Your task to perform on an android device: check battery use Image 0: 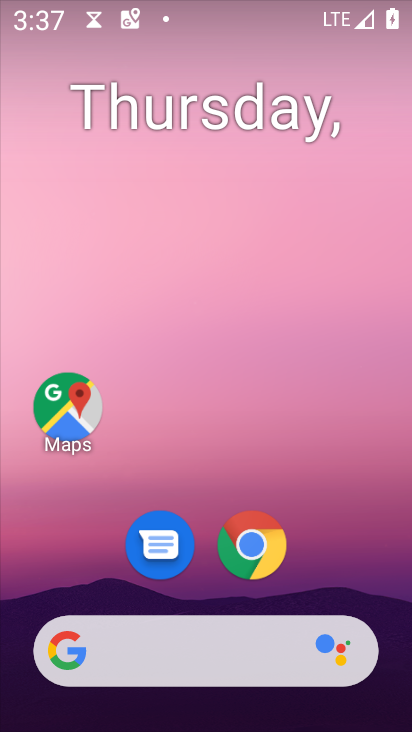
Step 0: drag from (368, 550) to (394, 36)
Your task to perform on an android device: check battery use Image 1: 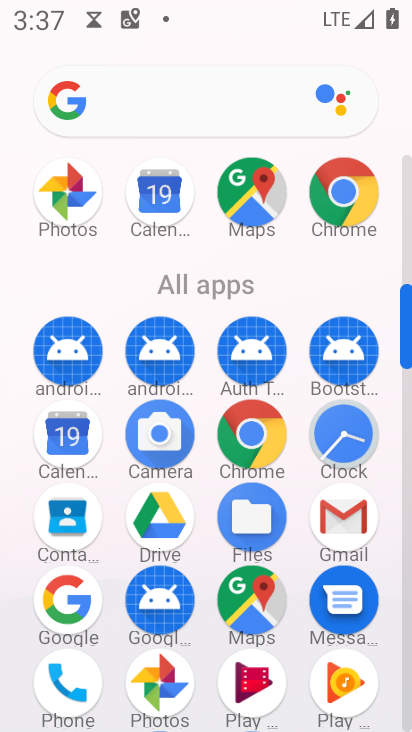
Step 1: drag from (390, 584) to (400, 221)
Your task to perform on an android device: check battery use Image 2: 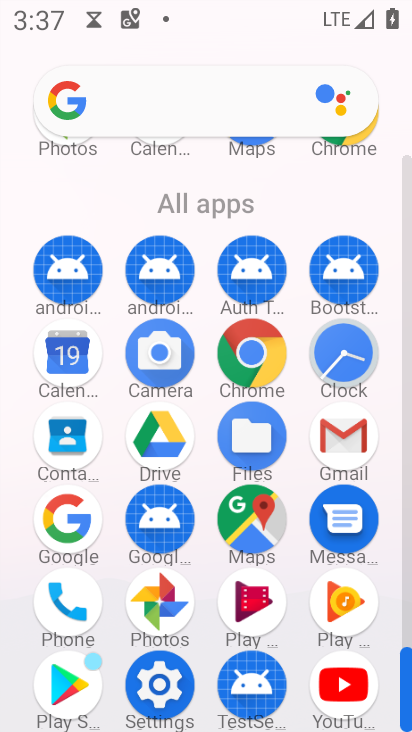
Step 2: click (181, 682)
Your task to perform on an android device: check battery use Image 3: 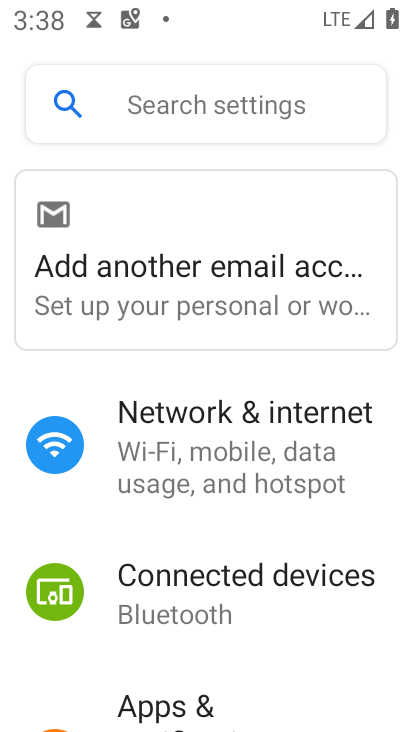
Step 3: drag from (188, 604) to (233, 235)
Your task to perform on an android device: check battery use Image 4: 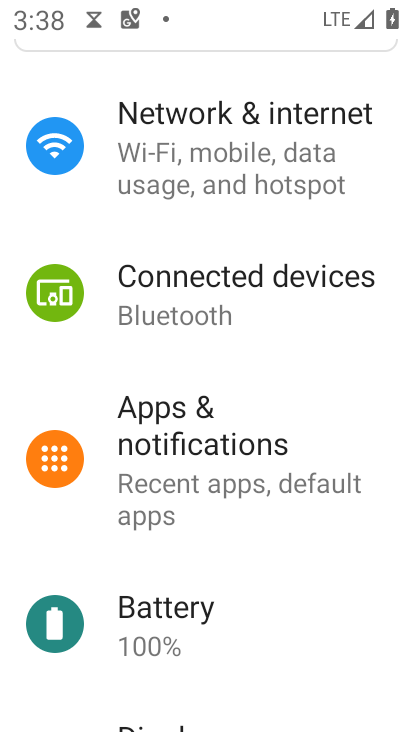
Step 4: click (182, 626)
Your task to perform on an android device: check battery use Image 5: 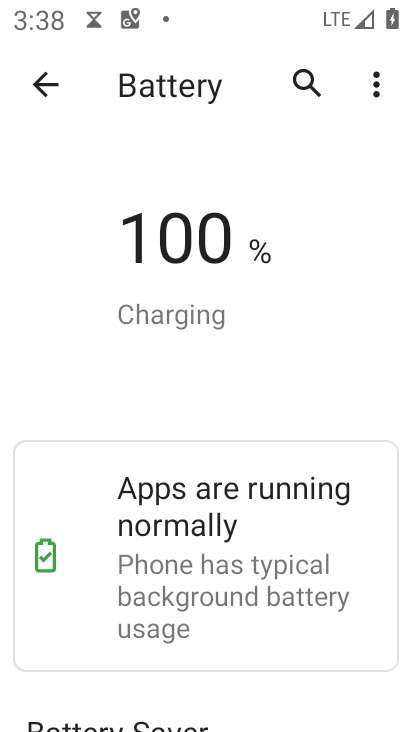
Step 5: task complete